Your task to perform on an android device: Open maps Image 0: 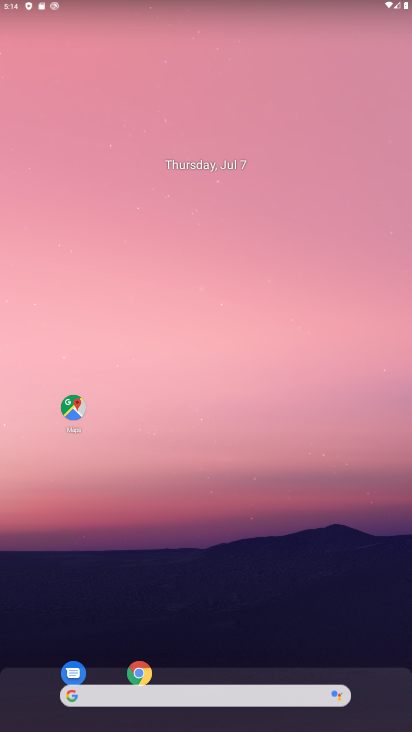
Step 0: drag from (285, 123) to (320, 47)
Your task to perform on an android device: Open maps Image 1: 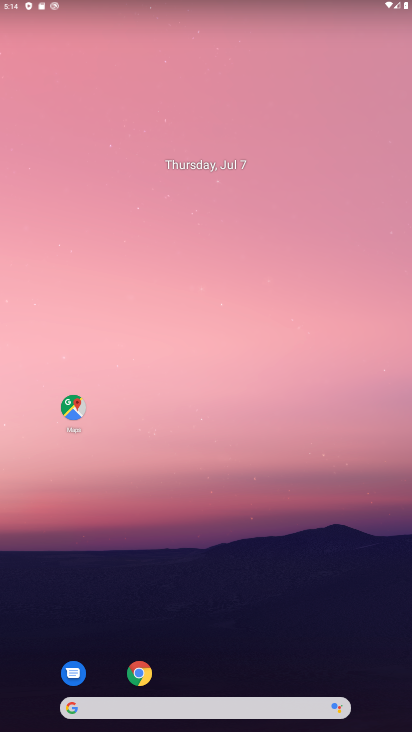
Step 1: drag from (268, 430) to (183, 39)
Your task to perform on an android device: Open maps Image 2: 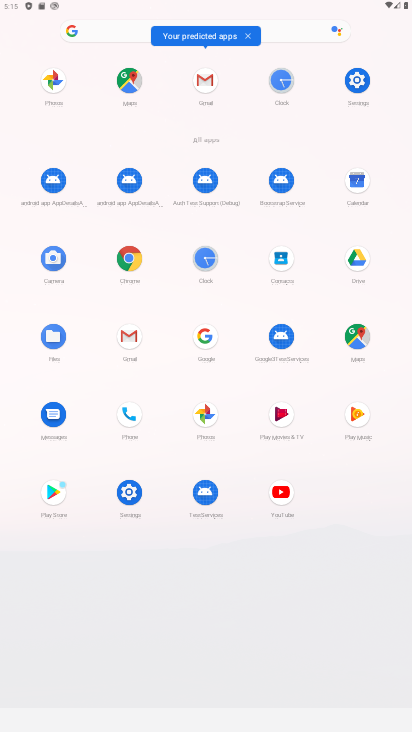
Step 2: click (134, 77)
Your task to perform on an android device: Open maps Image 3: 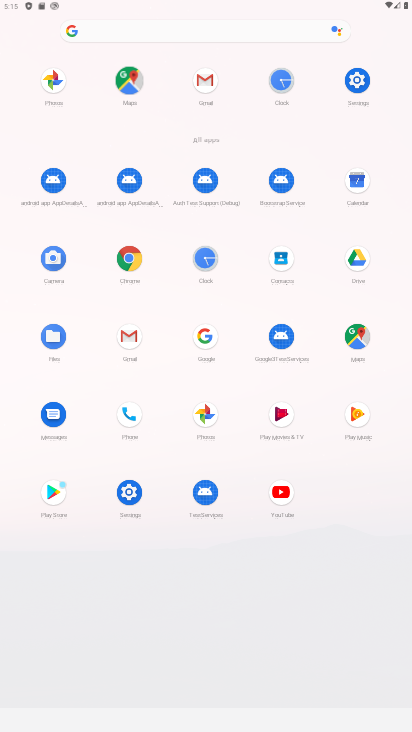
Step 3: click (134, 77)
Your task to perform on an android device: Open maps Image 4: 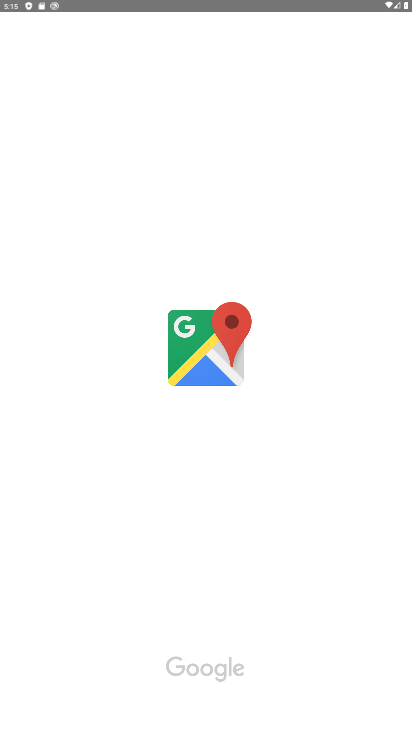
Step 4: click (140, 75)
Your task to perform on an android device: Open maps Image 5: 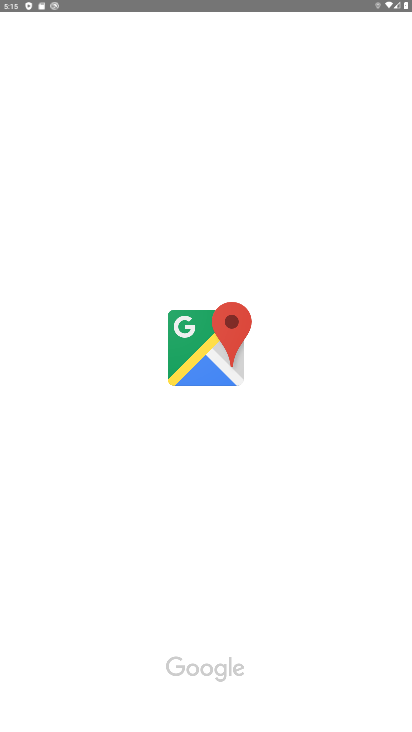
Step 5: click (141, 76)
Your task to perform on an android device: Open maps Image 6: 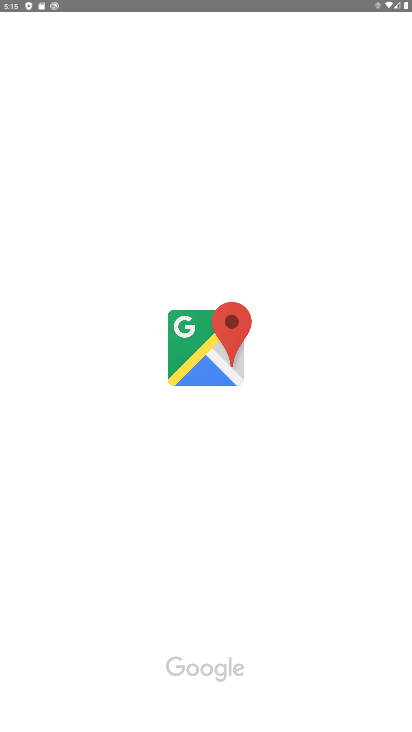
Step 6: click (141, 100)
Your task to perform on an android device: Open maps Image 7: 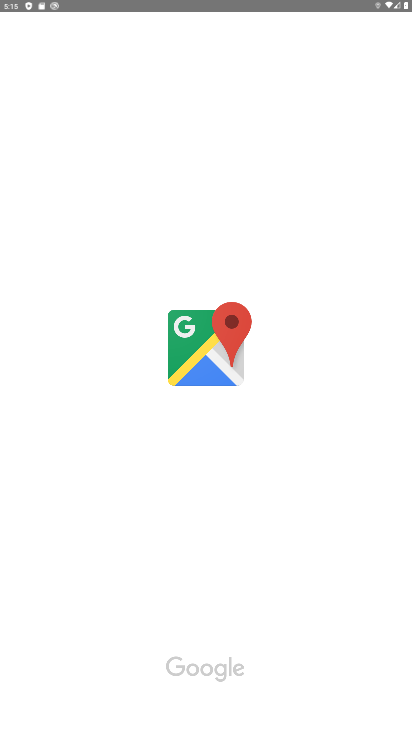
Step 7: click (202, 384)
Your task to perform on an android device: Open maps Image 8: 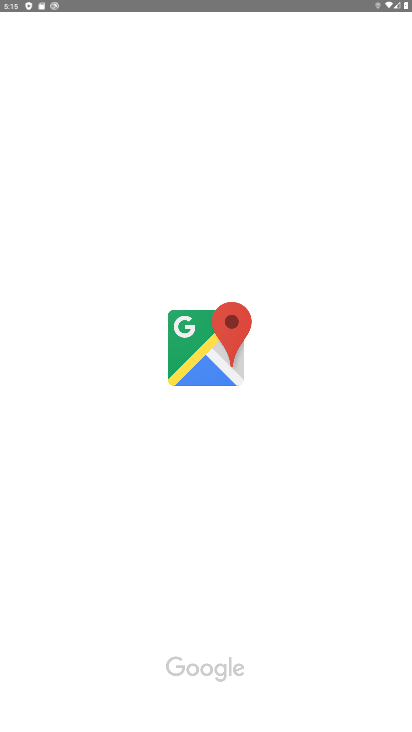
Step 8: click (206, 383)
Your task to perform on an android device: Open maps Image 9: 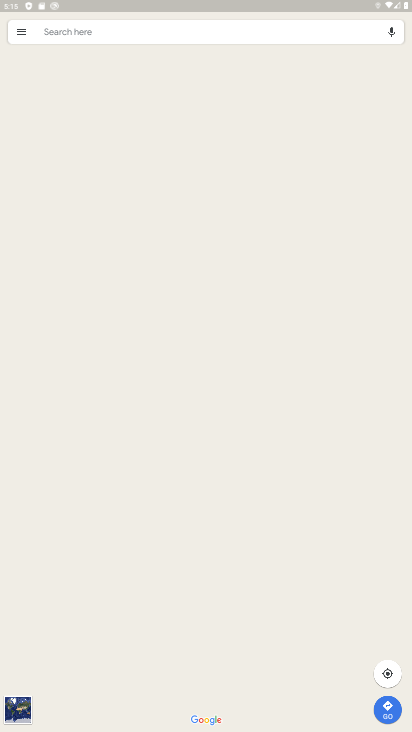
Step 9: click (198, 386)
Your task to perform on an android device: Open maps Image 10: 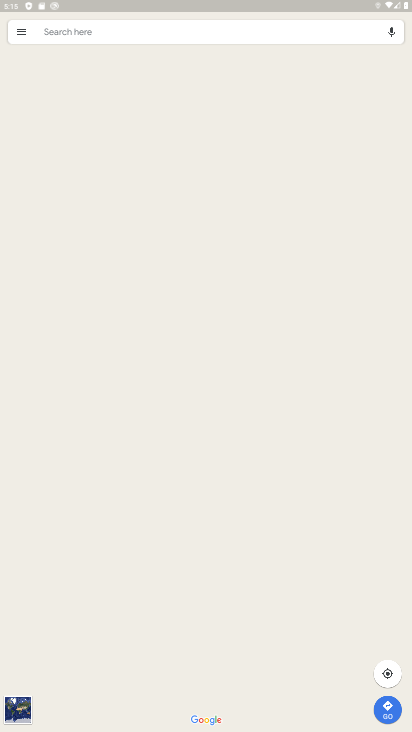
Step 10: click (200, 387)
Your task to perform on an android device: Open maps Image 11: 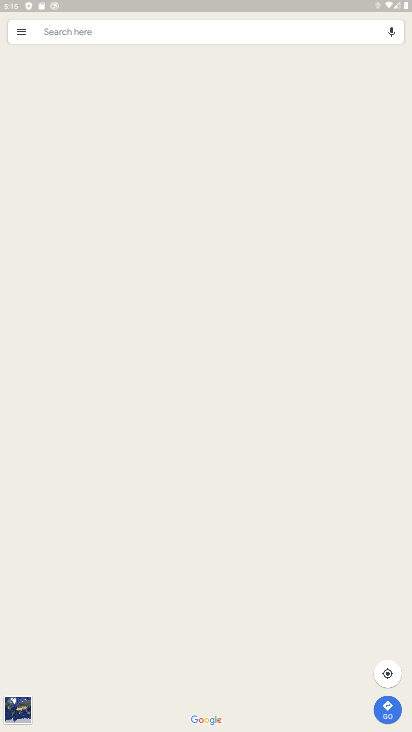
Step 11: click (214, 375)
Your task to perform on an android device: Open maps Image 12: 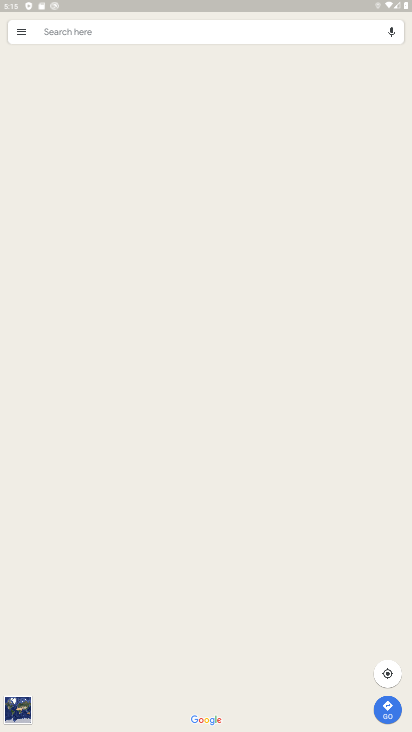
Step 12: task complete